Your task to perform on an android device: Open Google Chrome and open the bookmarks view Image 0: 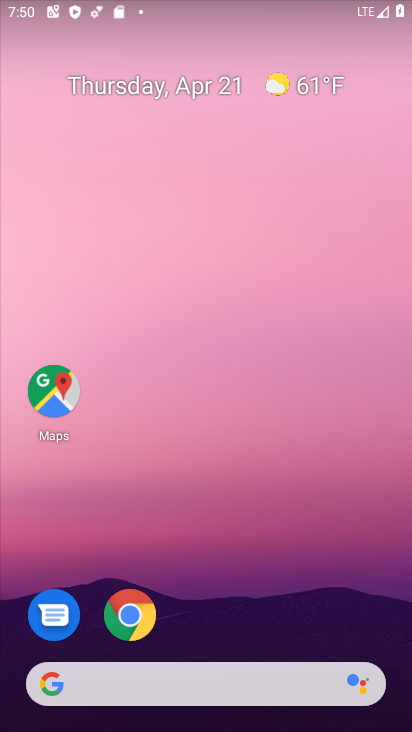
Step 0: click (257, 83)
Your task to perform on an android device: Open Google Chrome and open the bookmarks view Image 1: 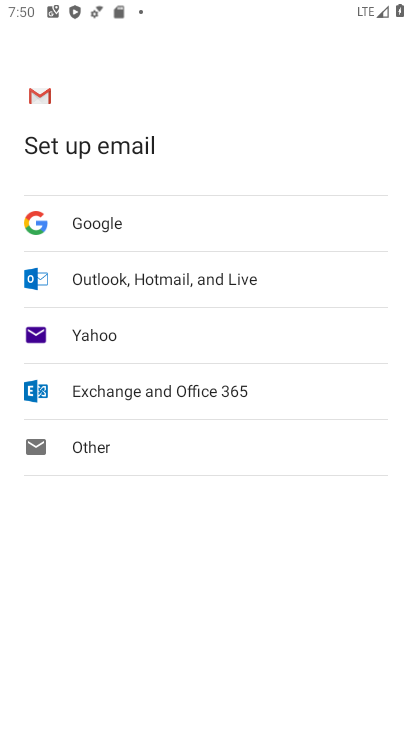
Step 1: press home button
Your task to perform on an android device: Open Google Chrome and open the bookmarks view Image 2: 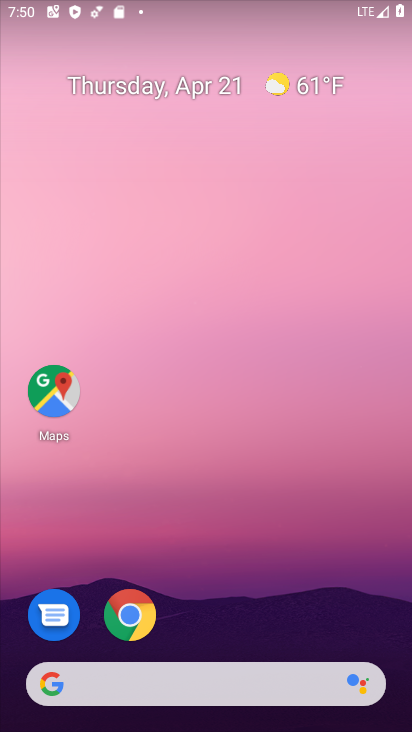
Step 2: click (128, 624)
Your task to perform on an android device: Open Google Chrome and open the bookmarks view Image 3: 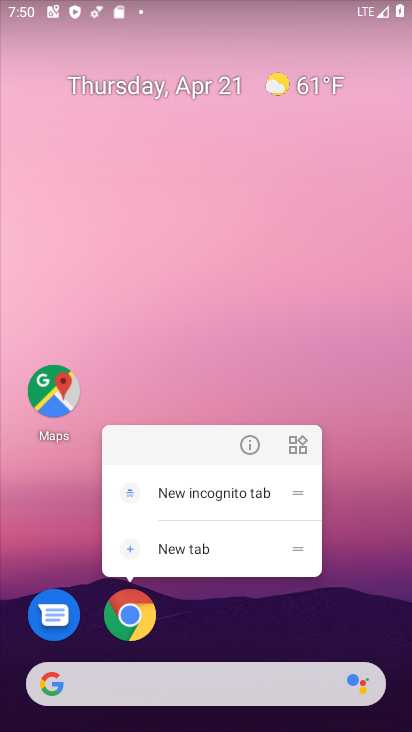
Step 3: click (255, 446)
Your task to perform on an android device: Open Google Chrome and open the bookmarks view Image 4: 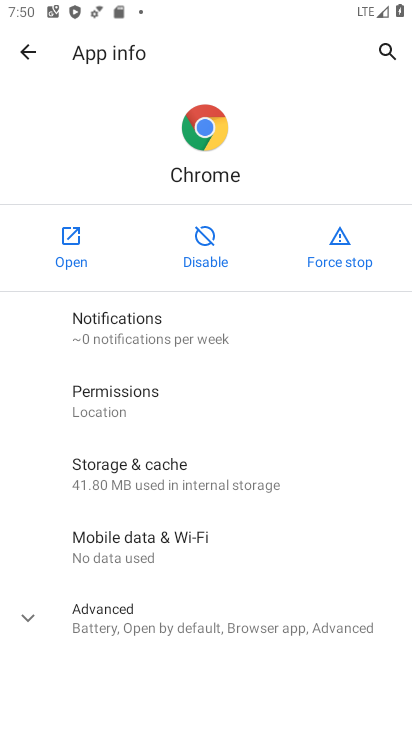
Step 4: click (62, 238)
Your task to perform on an android device: Open Google Chrome and open the bookmarks view Image 5: 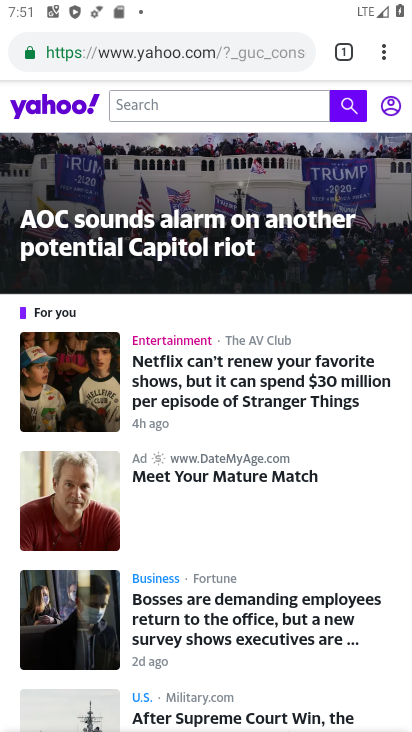
Step 5: task complete